Your task to perform on an android device: Go to Reddit.com Image 0: 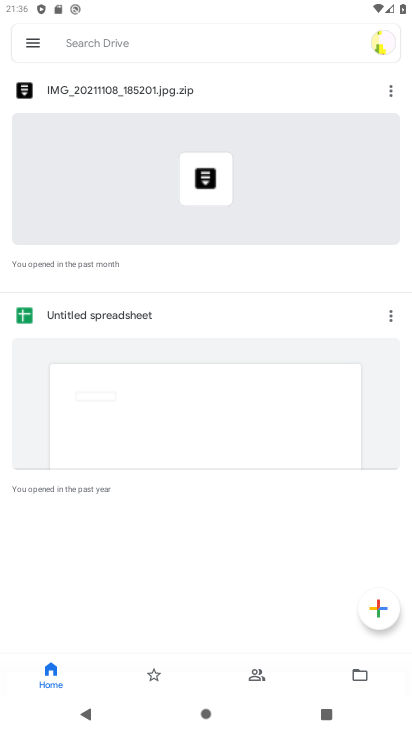
Step 0: press home button
Your task to perform on an android device: Go to Reddit.com Image 1: 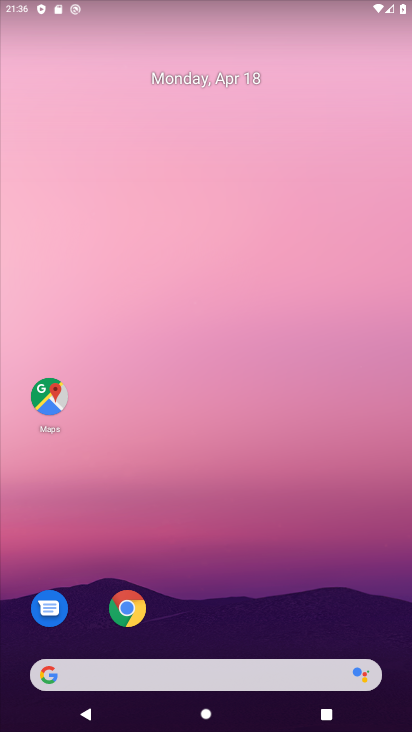
Step 1: drag from (220, 583) to (227, 122)
Your task to perform on an android device: Go to Reddit.com Image 2: 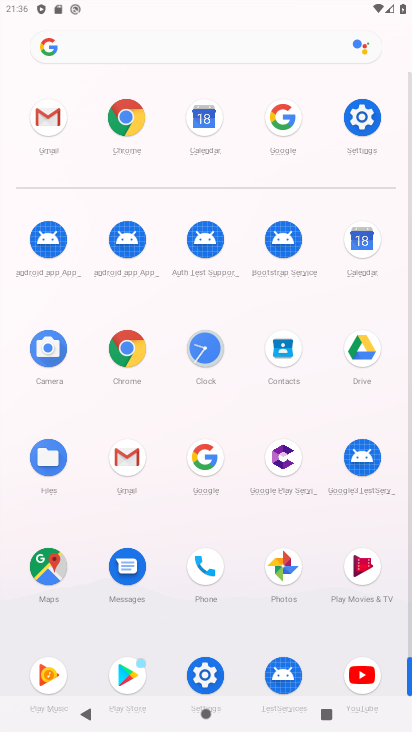
Step 2: click (202, 457)
Your task to perform on an android device: Go to Reddit.com Image 3: 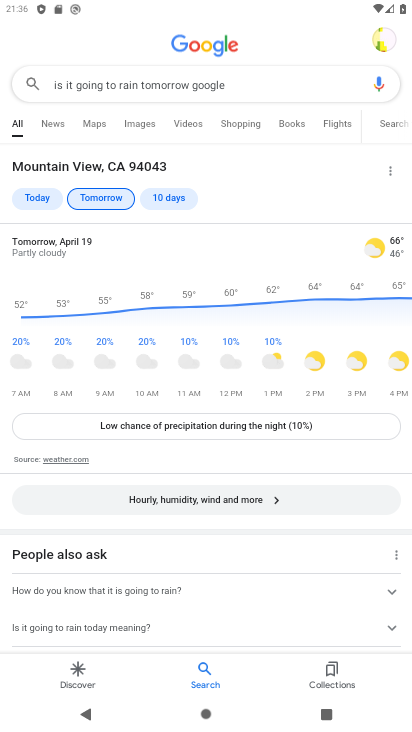
Step 3: click (243, 76)
Your task to perform on an android device: Go to Reddit.com Image 4: 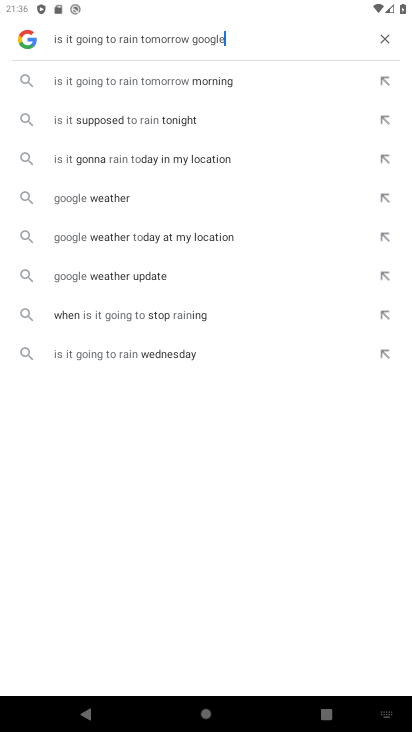
Step 4: click (381, 40)
Your task to perform on an android device: Go to Reddit.com Image 5: 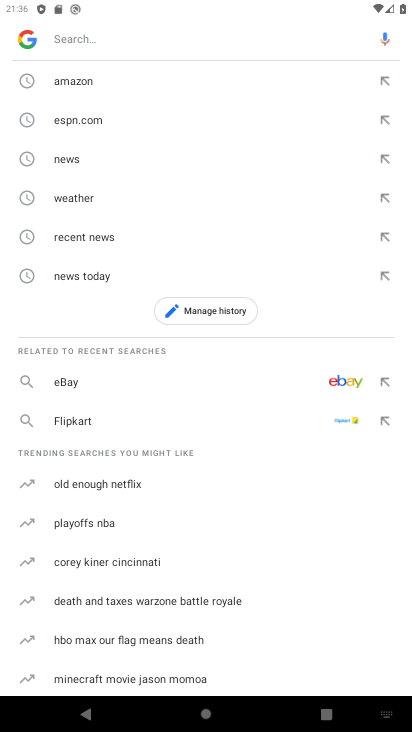
Step 5: type "reddit.com"
Your task to perform on an android device: Go to Reddit.com Image 6: 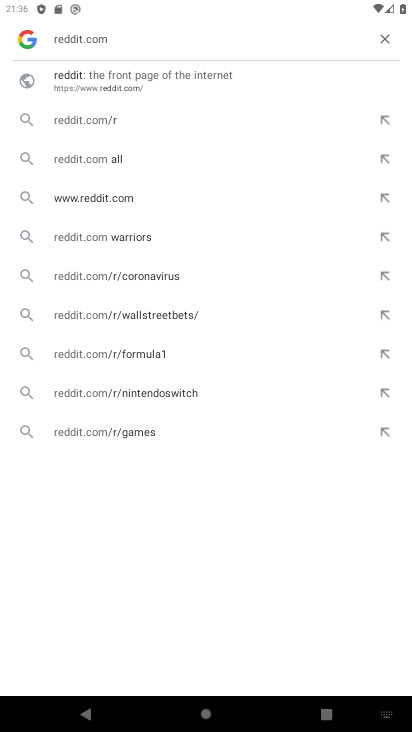
Step 6: click (143, 82)
Your task to perform on an android device: Go to Reddit.com Image 7: 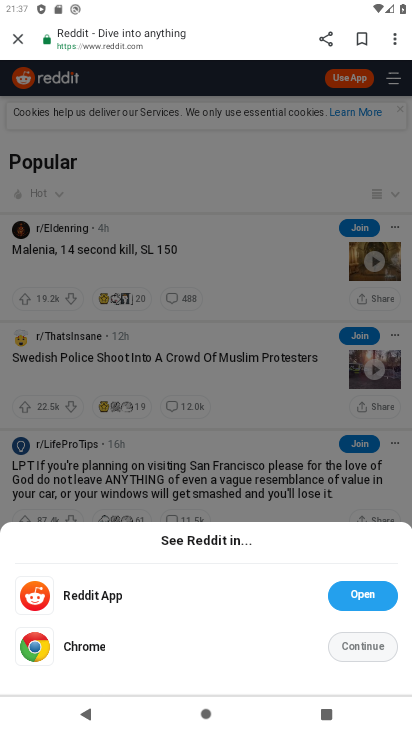
Step 7: task complete